Your task to perform on an android device: turn off wifi Image 0: 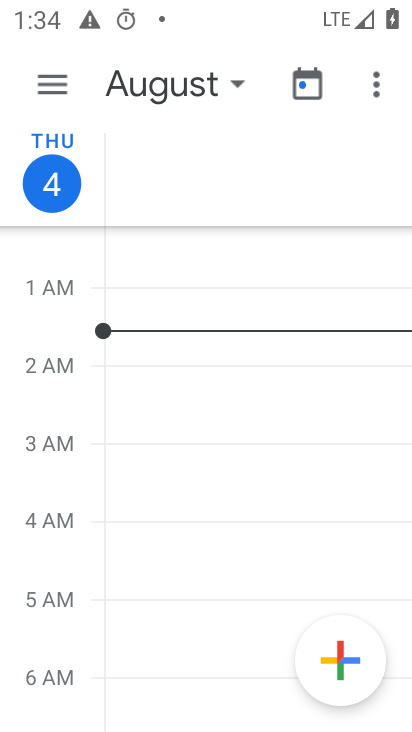
Step 0: press home button
Your task to perform on an android device: turn off wifi Image 1: 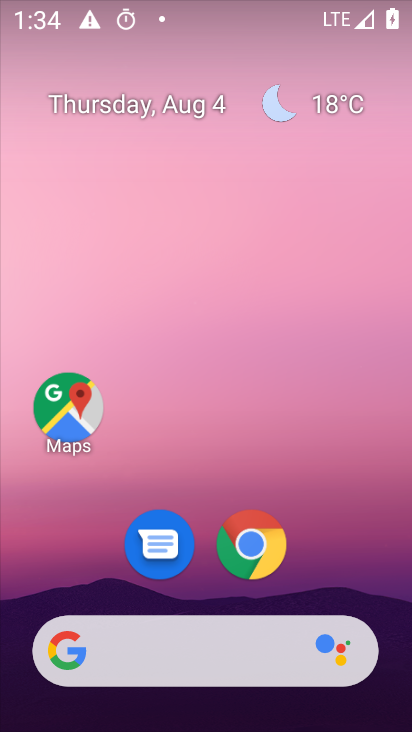
Step 1: drag from (353, 621) to (319, 158)
Your task to perform on an android device: turn off wifi Image 2: 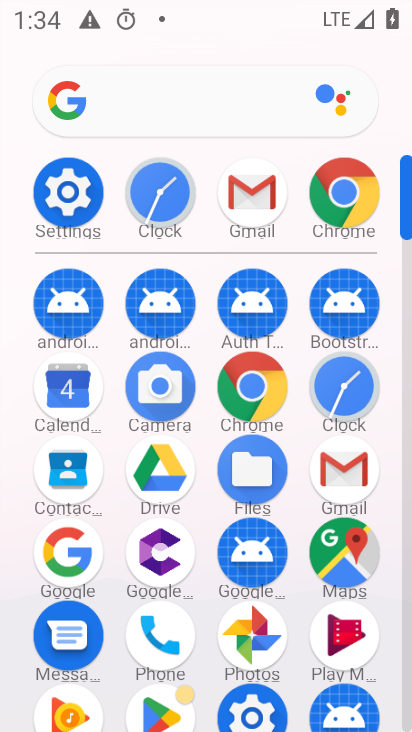
Step 2: click (65, 186)
Your task to perform on an android device: turn off wifi Image 3: 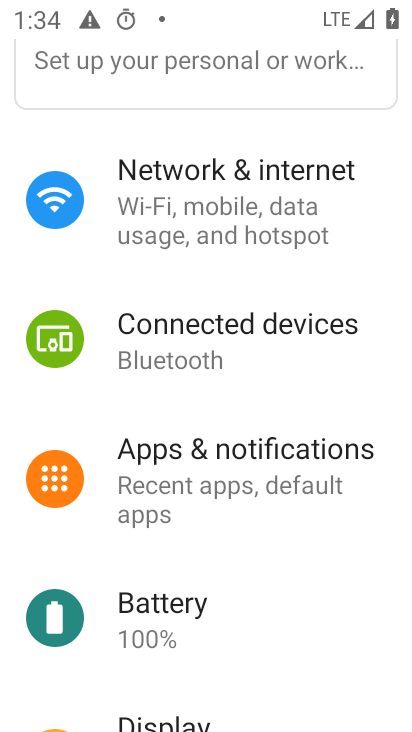
Step 3: click (161, 199)
Your task to perform on an android device: turn off wifi Image 4: 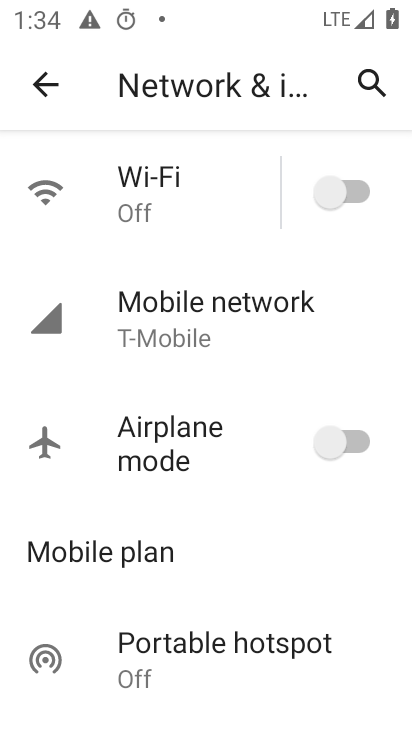
Step 4: click (350, 196)
Your task to perform on an android device: turn off wifi Image 5: 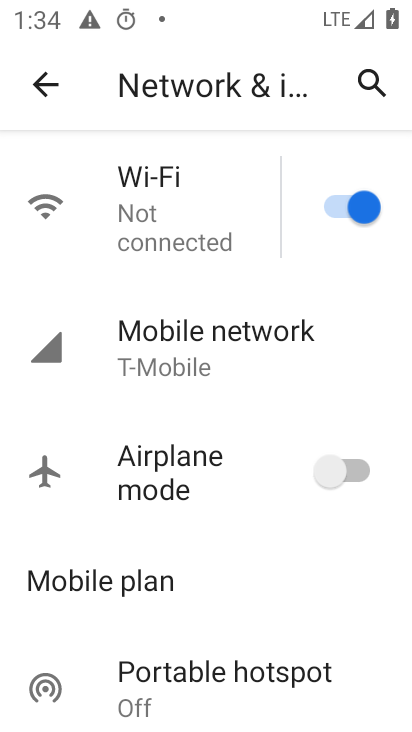
Step 5: click (344, 196)
Your task to perform on an android device: turn off wifi Image 6: 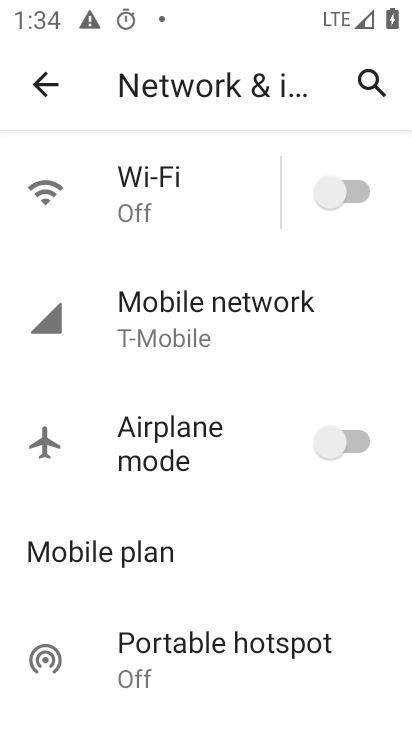
Step 6: task complete